Your task to perform on an android device: Go to ESPN.com Image 0: 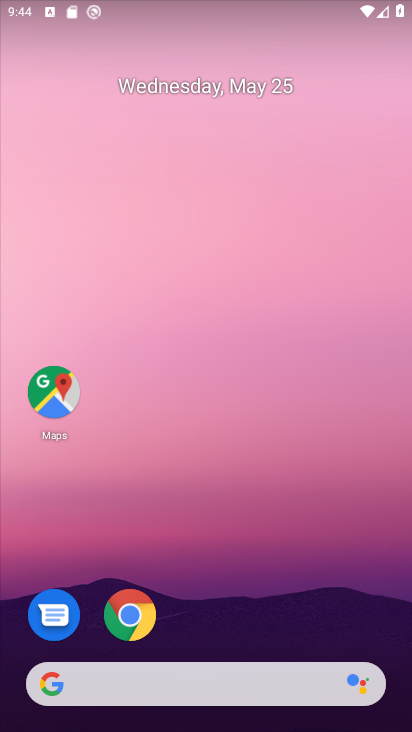
Step 0: drag from (322, 621) to (400, 160)
Your task to perform on an android device: Go to ESPN.com Image 1: 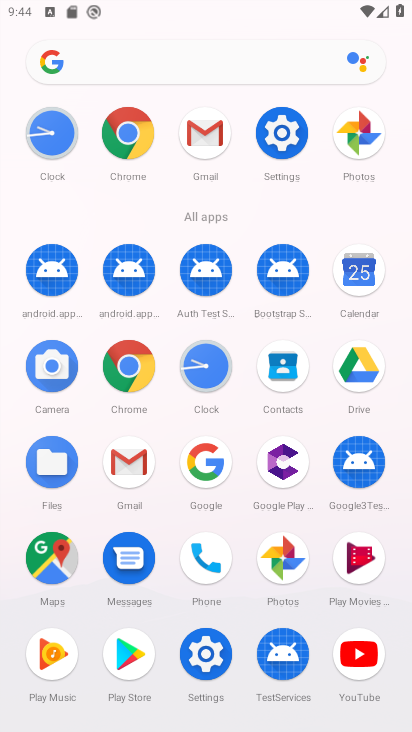
Step 1: click (137, 377)
Your task to perform on an android device: Go to ESPN.com Image 2: 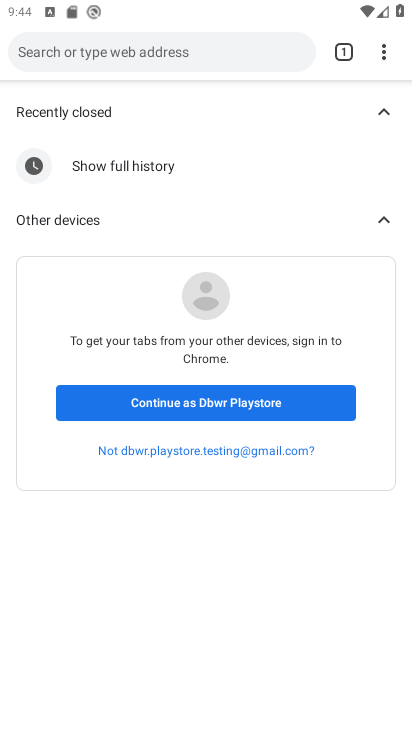
Step 2: click (205, 351)
Your task to perform on an android device: Go to ESPN.com Image 3: 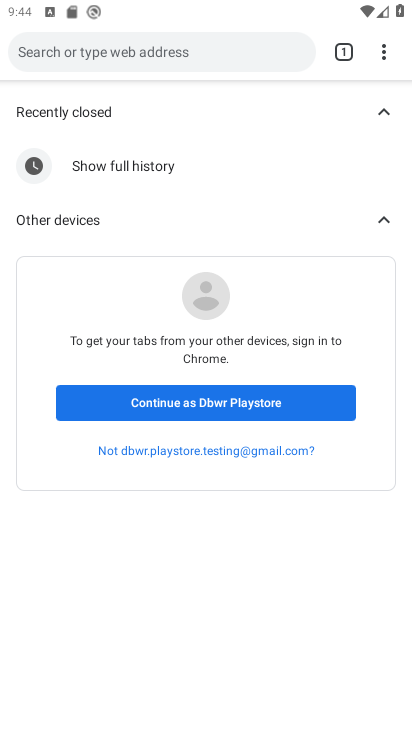
Step 3: click (211, 35)
Your task to perform on an android device: Go to ESPN.com Image 4: 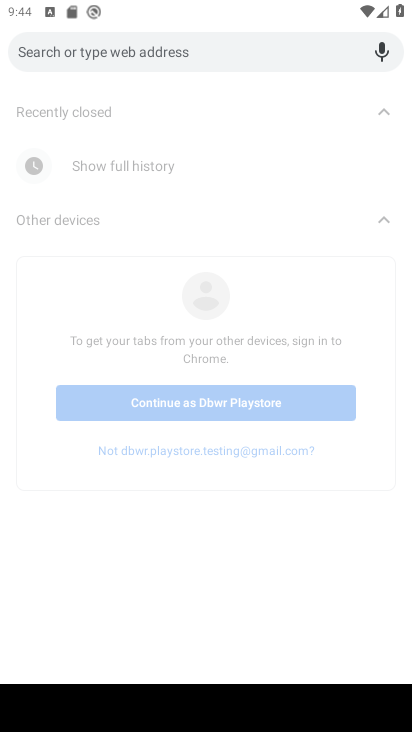
Step 4: type "espn.com"
Your task to perform on an android device: Go to ESPN.com Image 5: 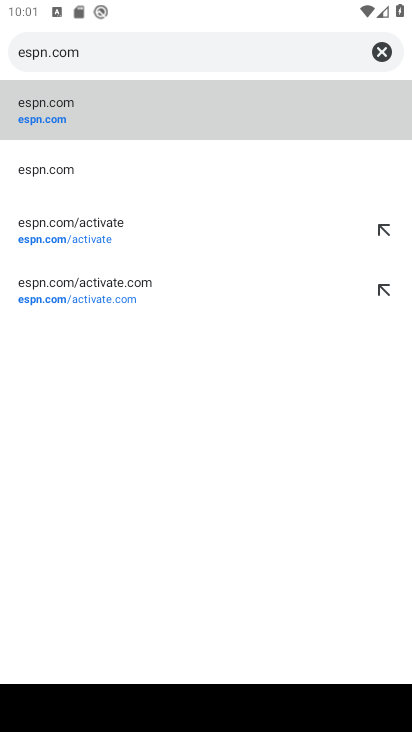
Step 5: task complete